Your task to perform on an android device: delete location history Image 0: 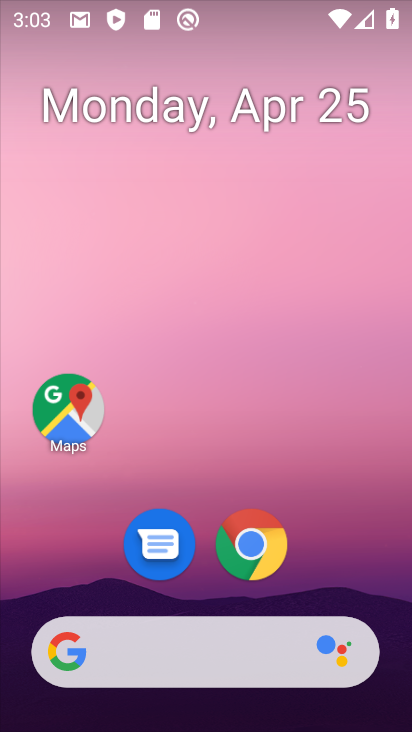
Step 0: click (72, 413)
Your task to perform on an android device: delete location history Image 1: 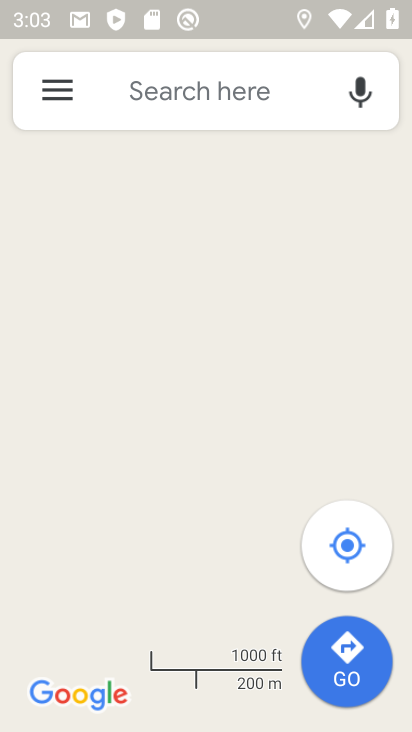
Step 1: click (55, 94)
Your task to perform on an android device: delete location history Image 2: 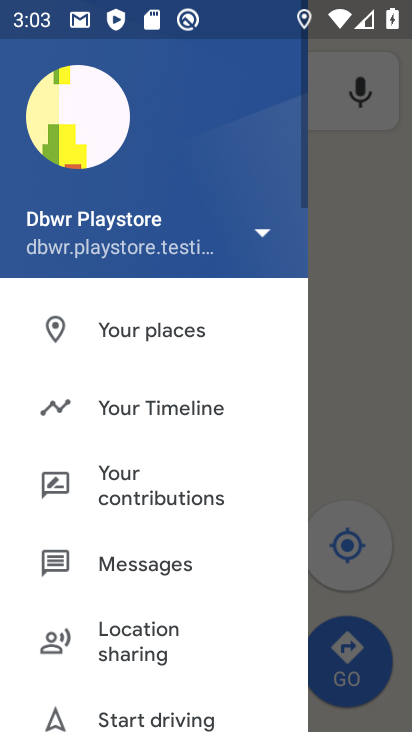
Step 2: drag from (162, 452) to (201, 344)
Your task to perform on an android device: delete location history Image 3: 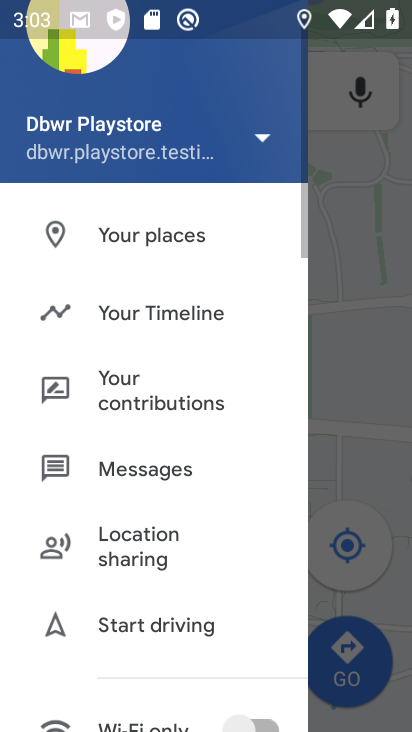
Step 3: drag from (157, 517) to (208, 396)
Your task to perform on an android device: delete location history Image 4: 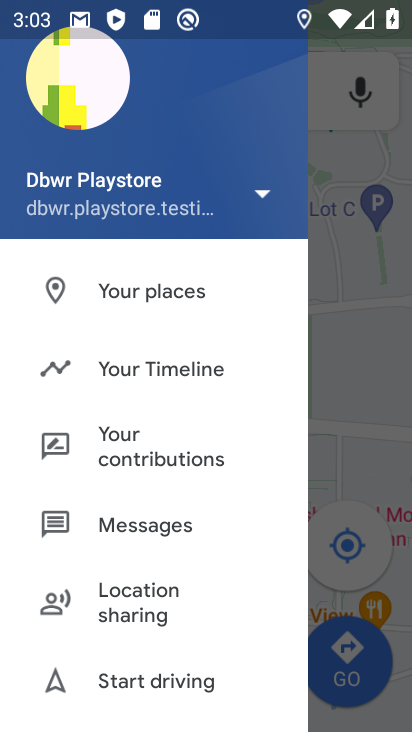
Step 4: drag from (139, 567) to (187, 418)
Your task to perform on an android device: delete location history Image 5: 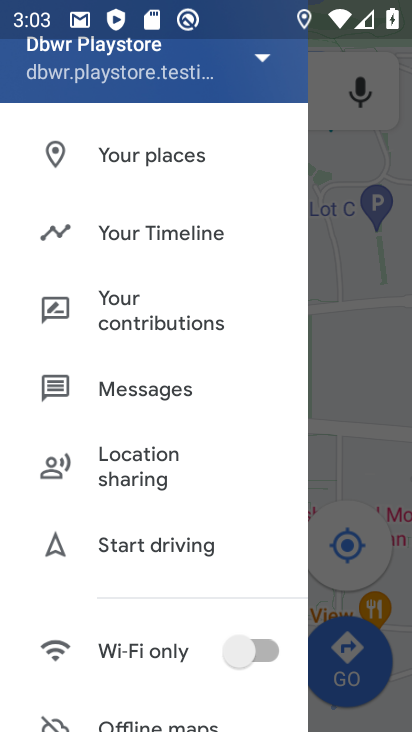
Step 5: drag from (132, 563) to (199, 423)
Your task to perform on an android device: delete location history Image 6: 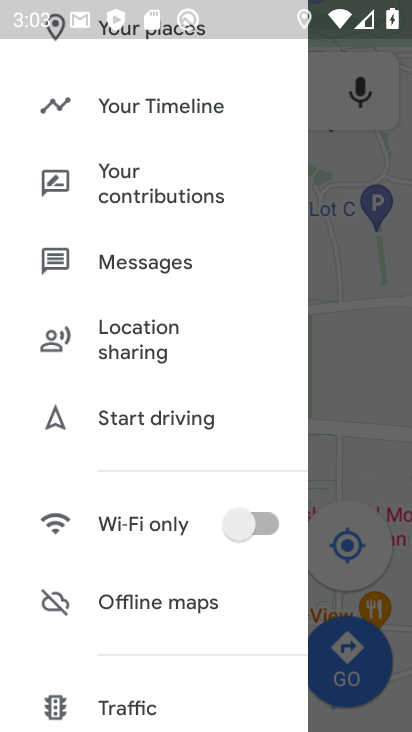
Step 6: drag from (132, 555) to (178, 399)
Your task to perform on an android device: delete location history Image 7: 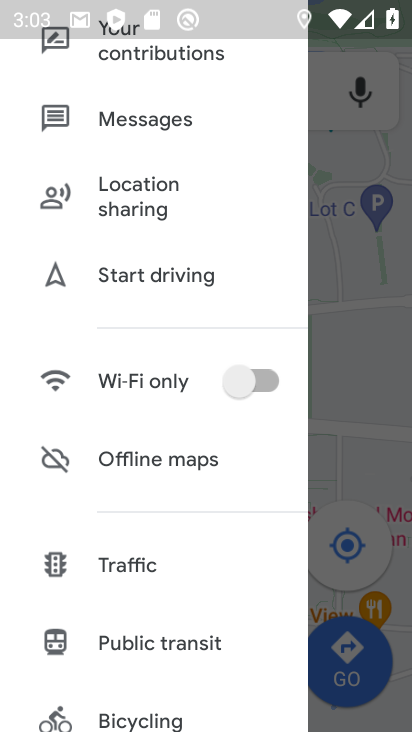
Step 7: drag from (124, 514) to (174, 347)
Your task to perform on an android device: delete location history Image 8: 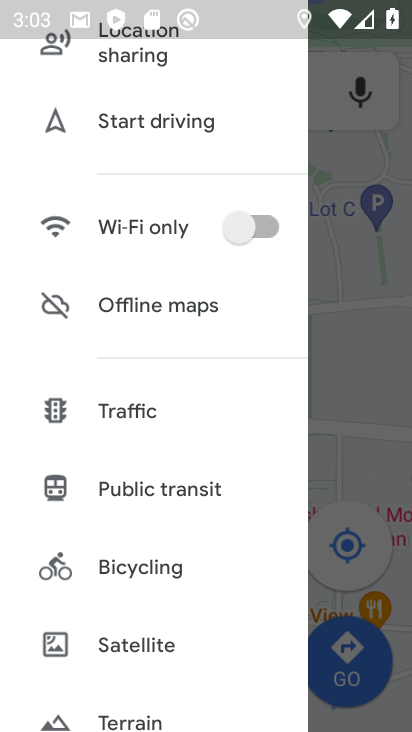
Step 8: drag from (125, 529) to (145, 334)
Your task to perform on an android device: delete location history Image 9: 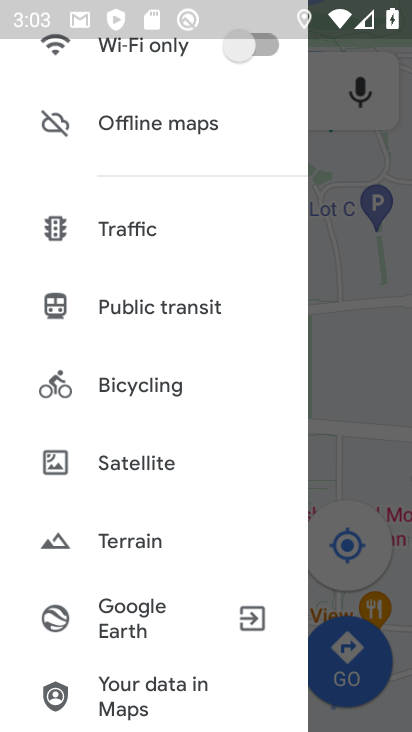
Step 9: drag from (116, 504) to (146, 330)
Your task to perform on an android device: delete location history Image 10: 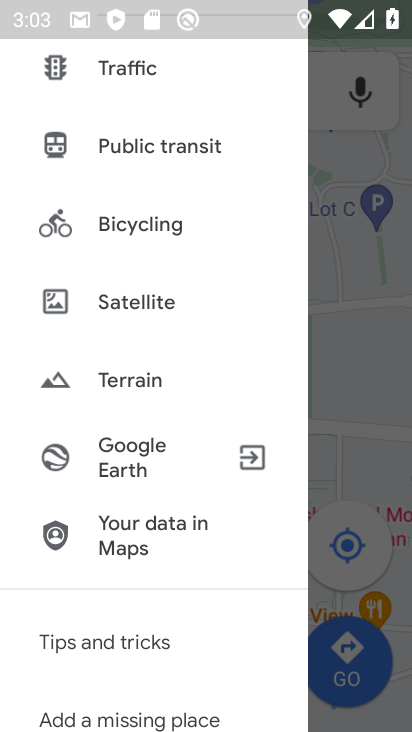
Step 10: drag from (137, 414) to (151, 293)
Your task to perform on an android device: delete location history Image 11: 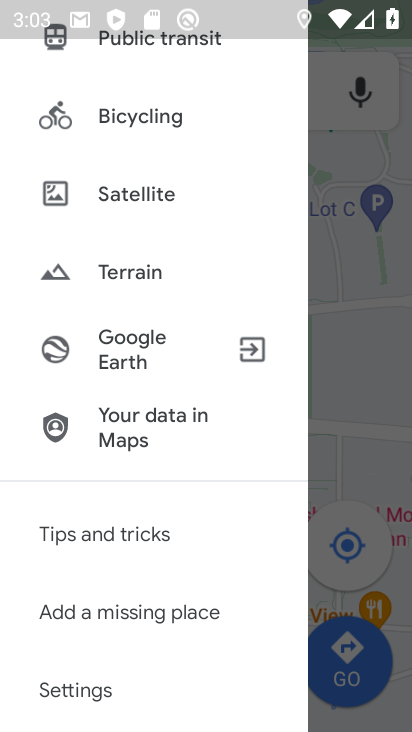
Step 11: drag from (116, 464) to (169, 361)
Your task to perform on an android device: delete location history Image 12: 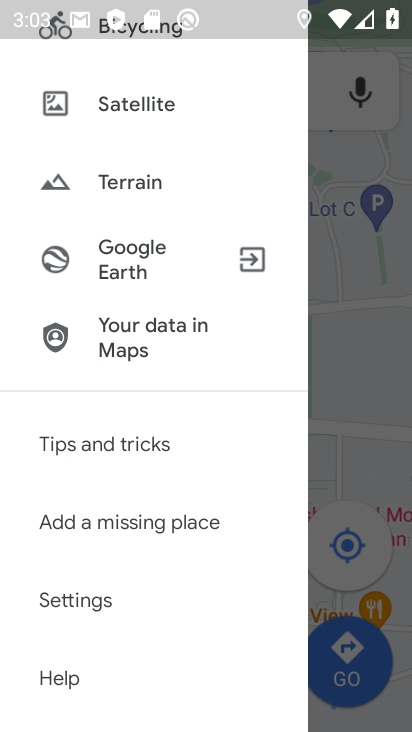
Step 12: click (77, 601)
Your task to perform on an android device: delete location history Image 13: 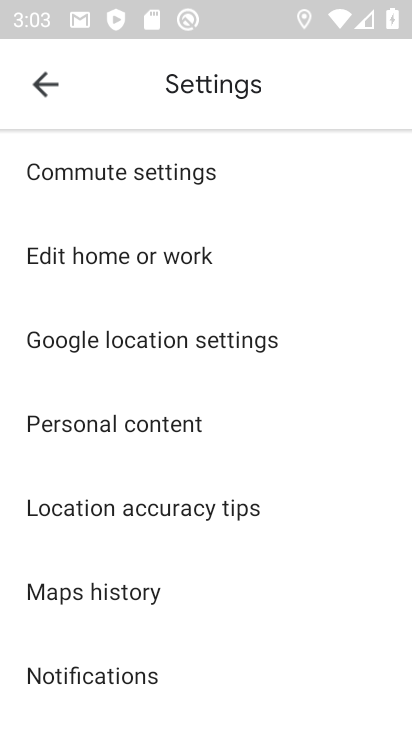
Step 13: click (128, 427)
Your task to perform on an android device: delete location history Image 14: 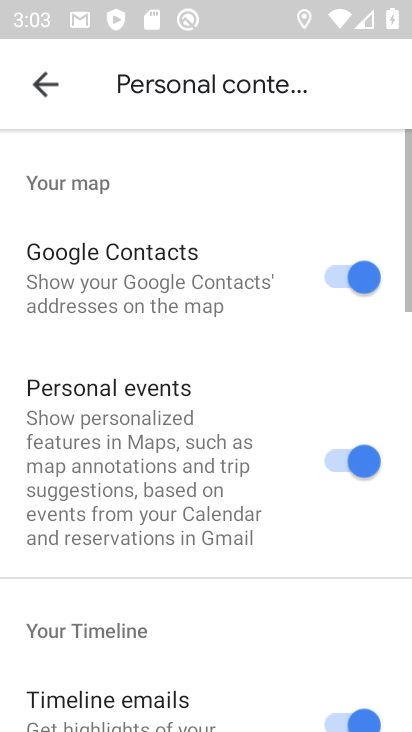
Step 14: drag from (125, 594) to (190, 468)
Your task to perform on an android device: delete location history Image 15: 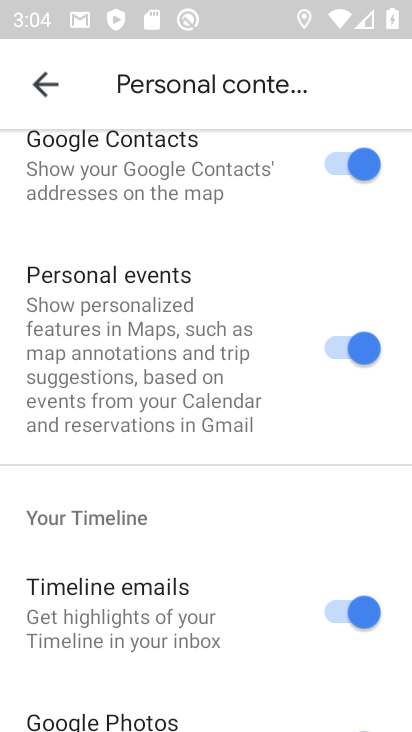
Step 15: drag from (186, 532) to (231, 416)
Your task to perform on an android device: delete location history Image 16: 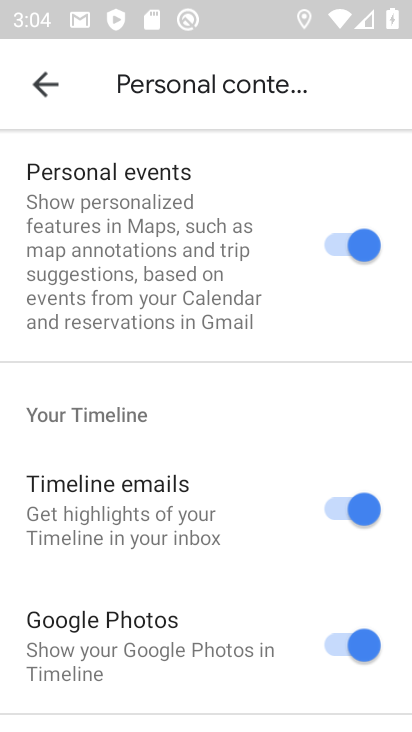
Step 16: drag from (120, 566) to (202, 420)
Your task to perform on an android device: delete location history Image 17: 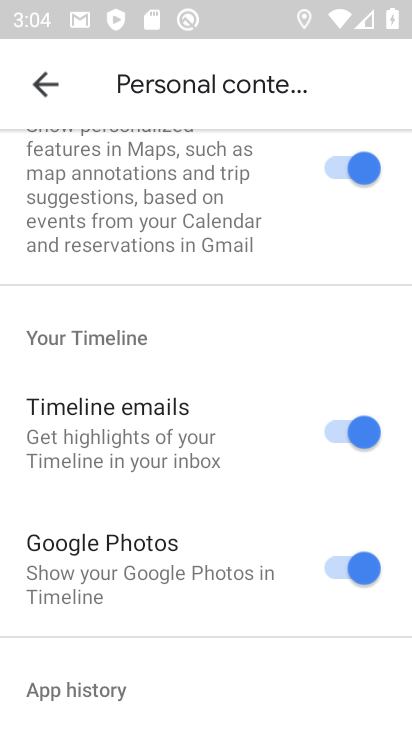
Step 17: drag from (106, 648) to (212, 484)
Your task to perform on an android device: delete location history Image 18: 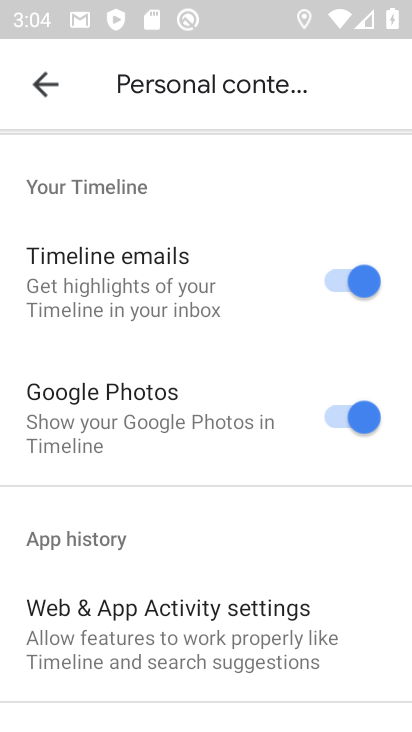
Step 18: drag from (149, 583) to (240, 370)
Your task to perform on an android device: delete location history Image 19: 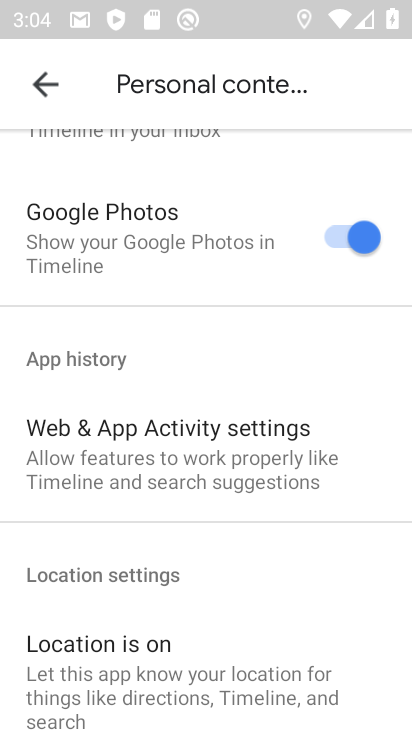
Step 19: drag from (133, 549) to (239, 387)
Your task to perform on an android device: delete location history Image 20: 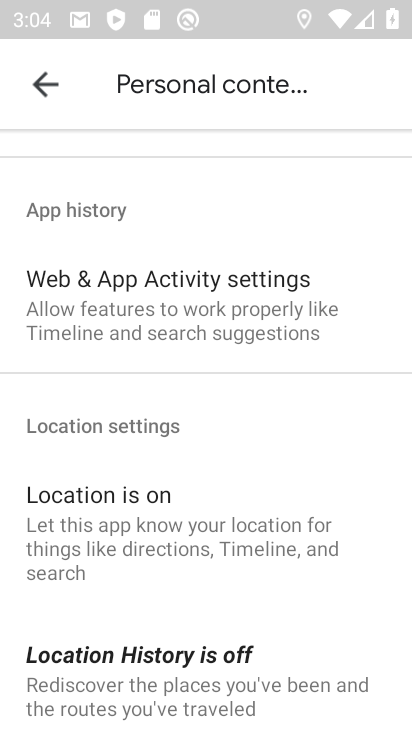
Step 20: drag from (136, 608) to (276, 411)
Your task to perform on an android device: delete location history Image 21: 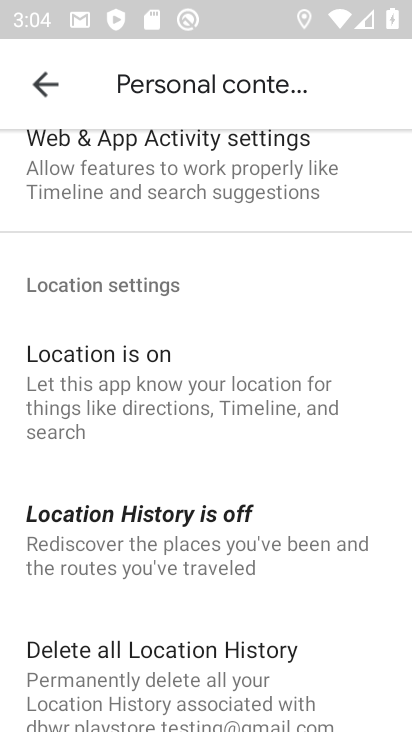
Step 21: drag from (152, 605) to (286, 382)
Your task to perform on an android device: delete location history Image 22: 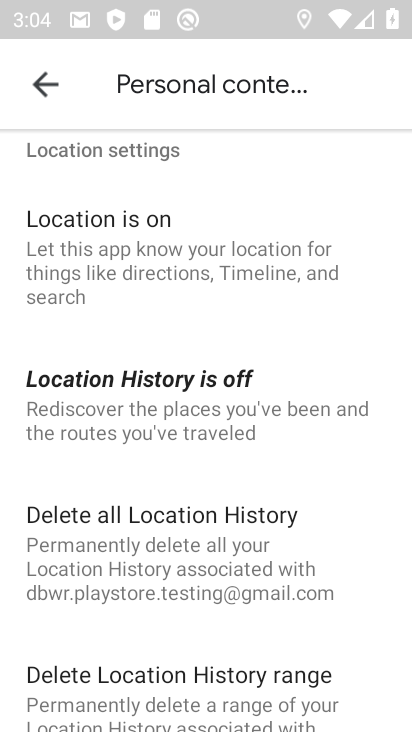
Step 22: click (215, 512)
Your task to perform on an android device: delete location history Image 23: 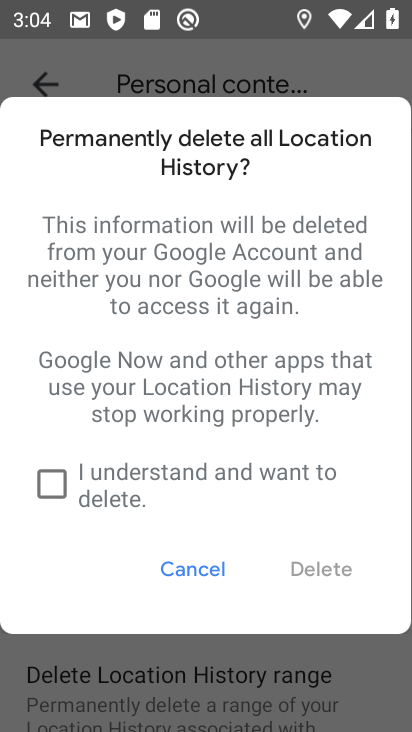
Step 23: click (40, 472)
Your task to perform on an android device: delete location history Image 24: 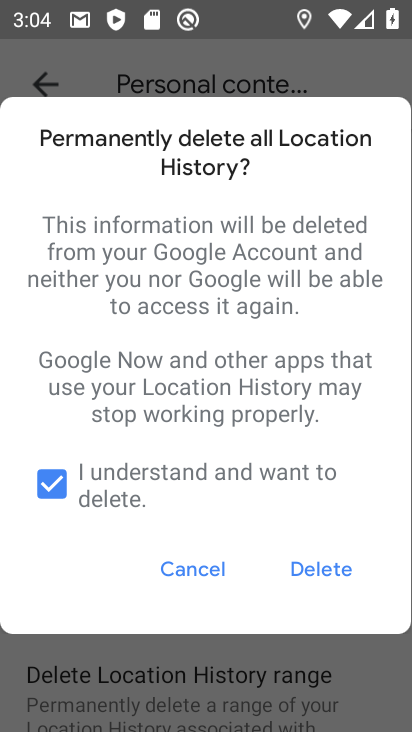
Step 24: click (322, 564)
Your task to perform on an android device: delete location history Image 25: 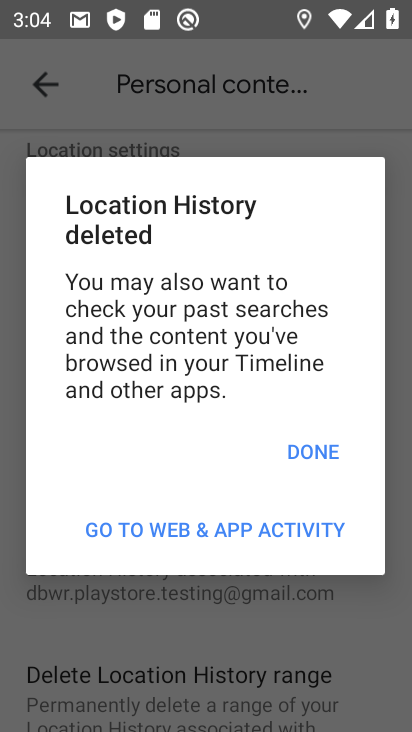
Step 25: click (328, 452)
Your task to perform on an android device: delete location history Image 26: 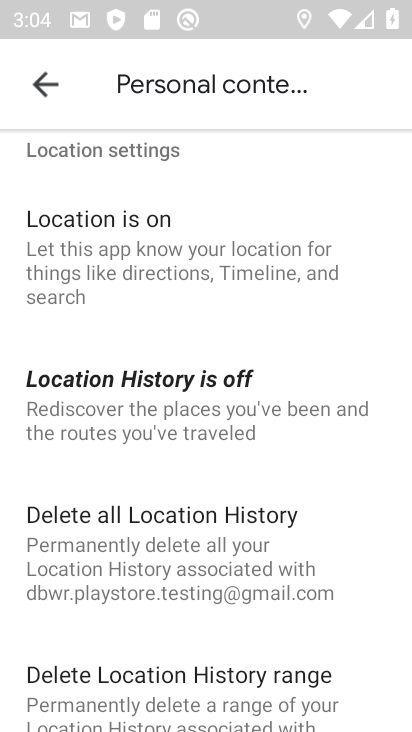
Step 26: task complete